Your task to perform on an android device: Clear the cart on target.com. Search for razer nari on target.com, select the first entry, add it to the cart, then select checkout. Image 0: 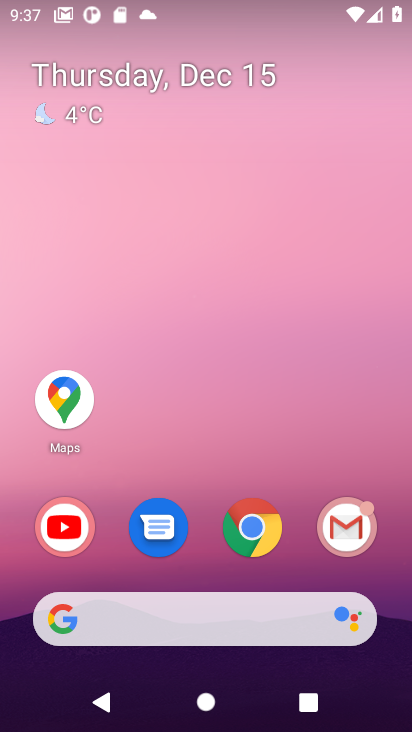
Step 0: click (254, 536)
Your task to perform on an android device: Clear the cart on target.com. Search for razer nari on target.com, select the first entry, add it to the cart, then select checkout. Image 1: 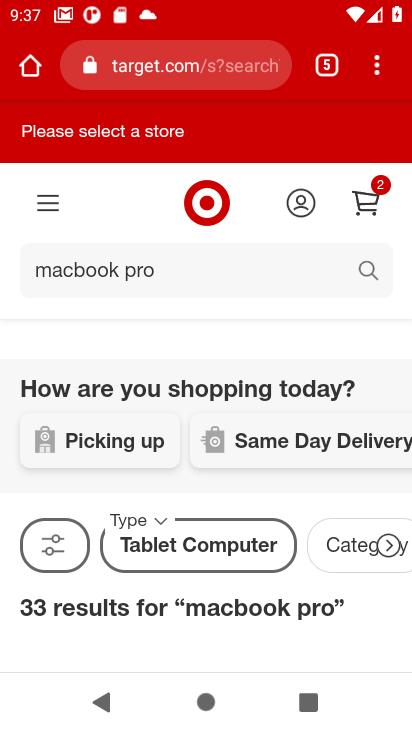
Step 1: click (210, 289)
Your task to perform on an android device: Clear the cart on target.com. Search for razer nari on target.com, select the first entry, add it to the cart, then select checkout. Image 2: 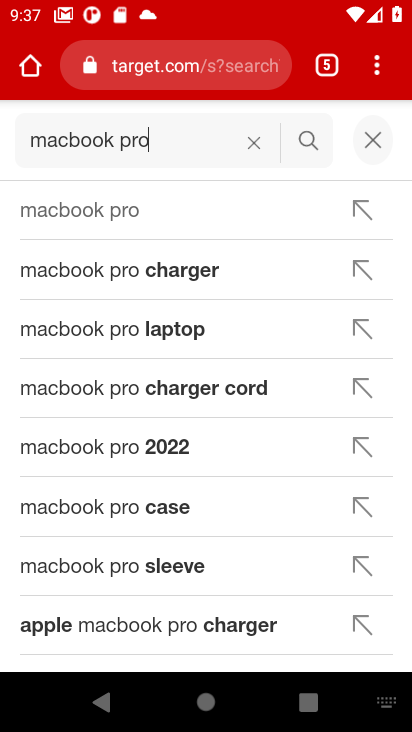
Step 2: click (360, 144)
Your task to perform on an android device: Clear the cart on target.com. Search for razer nari on target.com, select the first entry, add it to the cart, then select checkout. Image 3: 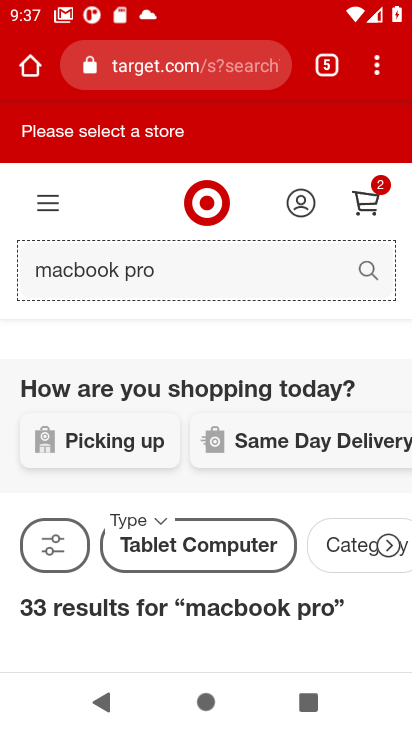
Step 3: click (180, 258)
Your task to perform on an android device: Clear the cart on target.com. Search for razer nari on target.com, select the first entry, add it to the cart, then select checkout. Image 4: 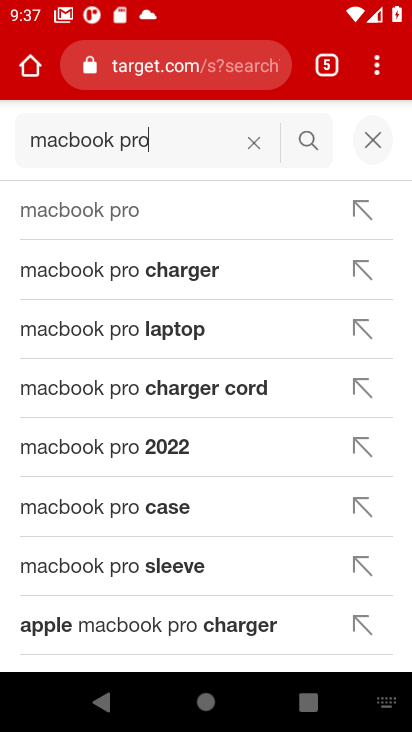
Step 4: click (263, 153)
Your task to perform on an android device: Clear the cart on target.com. Search for razer nari on target.com, select the first entry, add it to the cart, then select checkout. Image 5: 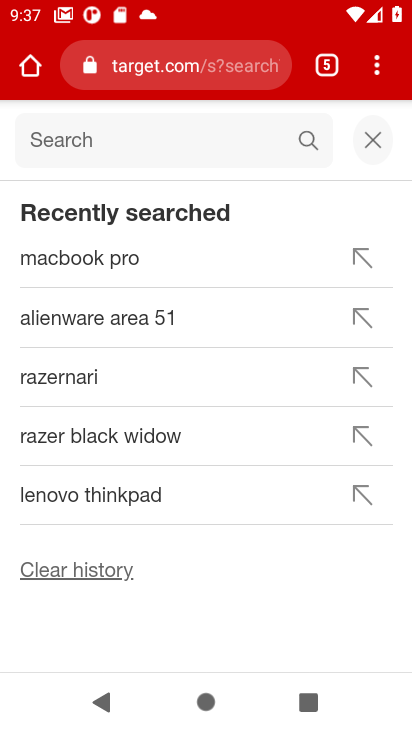
Step 5: type "razer nari"
Your task to perform on an android device: Clear the cart on target.com. Search for razer nari on target.com, select the first entry, add it to the cart, then select checkout. Image 6: 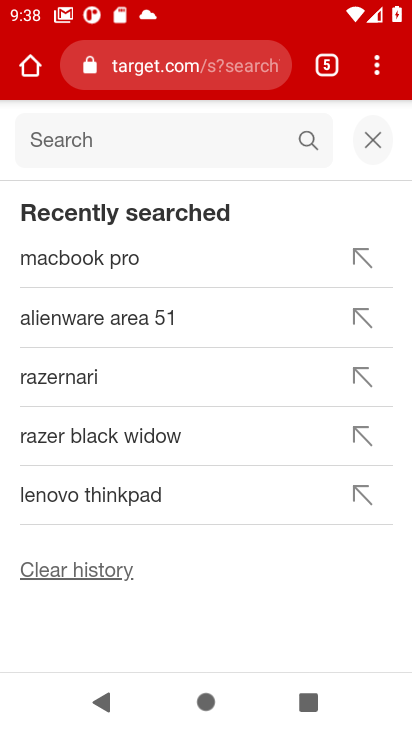
Step 6: click (198, 155)
Your task to perform on an android device: Clear the cart on target.com. Search for razer nari on target.com, select the first entry, add it to the cart, then select checkout. Image 7: 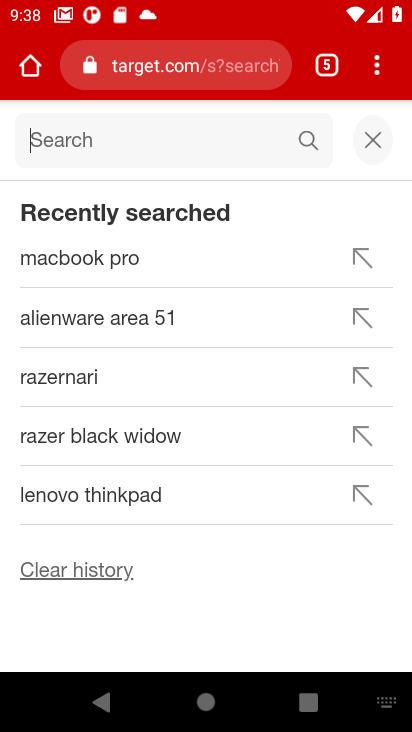
Step 7: type "razer nari"
Your task to perform on an android device: Clear the cart on target.com. Search for razer nari on target.com, select the first entry, add it to the cart, then select checkout. Image 8: 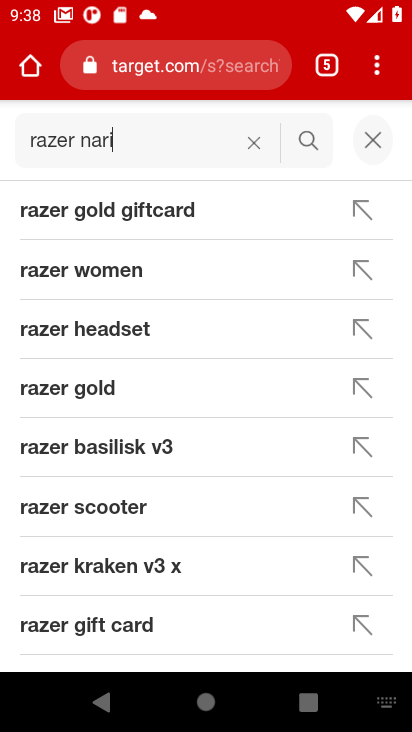
Step 8: click (306, 136)
Your task to perform on an android device: Clear the cart on target.com. Search for razer nari on target.com, select the first entry, add it to the cart, then select checkout. Image 9: 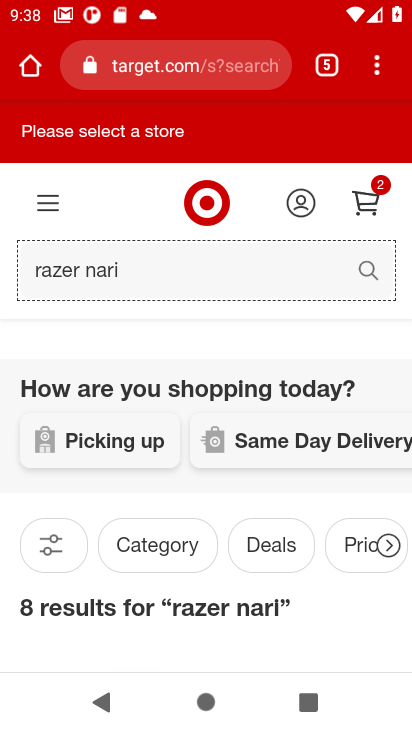
Step 9: drag from (180, 625) to (222, 124)
Your task to perform on an android device: Clear the cart on target.com. Search for razer nari on target.com, select the first entry, add it to the cart, then select checkout. Image 10: 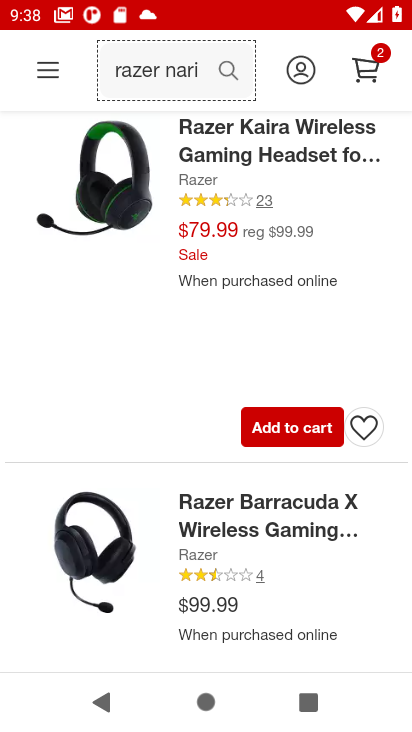
Step 10: click (294, 418)
Your task to perform on an android device: Clear the cart on target.com. Search for razer nari on target.com, select the first entry, add it to the cart, then select checkout. Image 11: 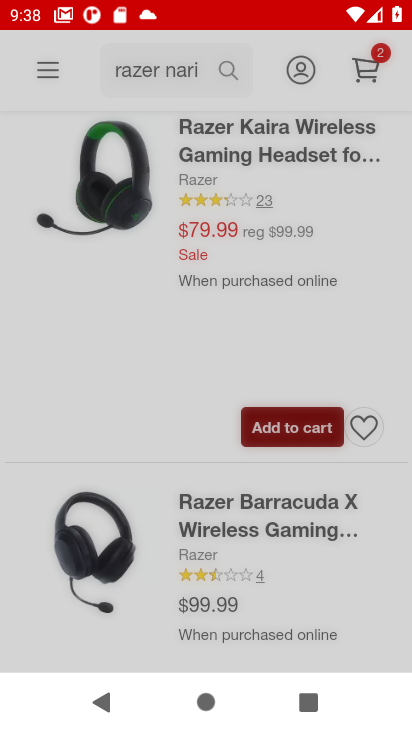
Step 11: task complete